Your task to perform on an android device: clear history in the chrome app Image 0: 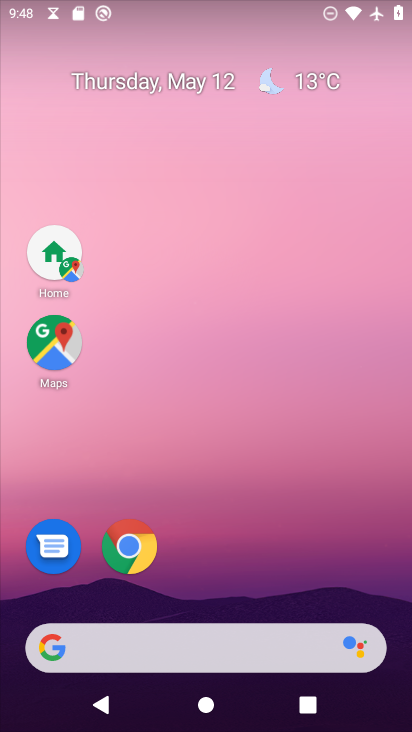
Step 0: press home button
Your task to perform on an android device: clear history in the chrome app Image 1: 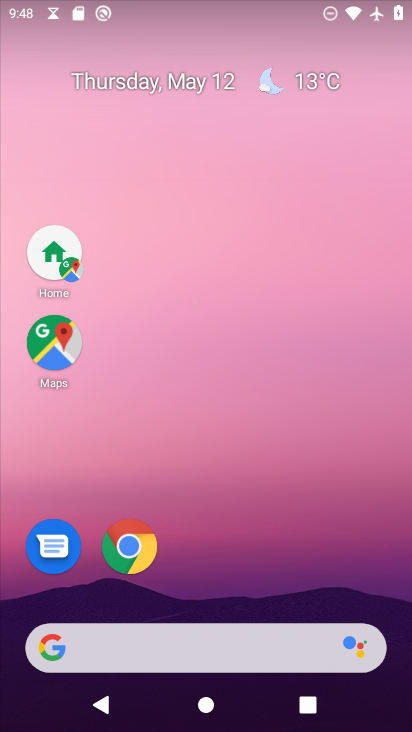
Step 1: drag from (151, 656) to (313, 188)
Your task to perform on an android device: clear history in the chrome app Image 2: 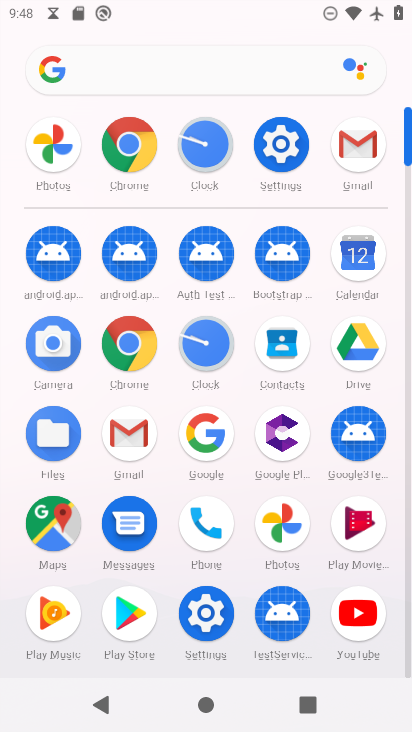
Step 2: click (143, 161)
Your task to perform on an android device: clear history in the chrome app Image 3: 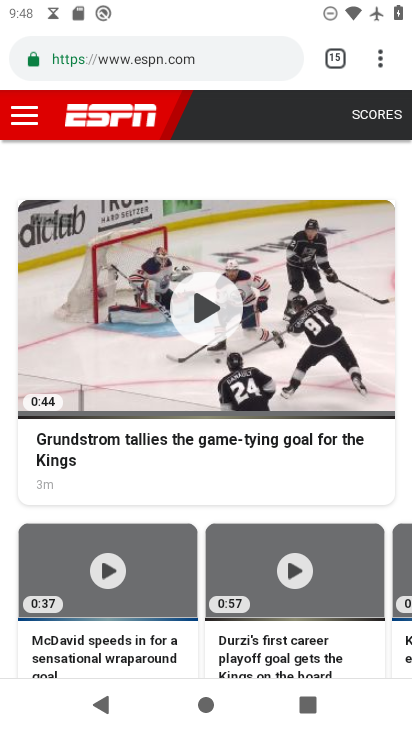
Step 3: drag from (380, 62) to (175, 327)
Your task to perform on an android device: clear history in the chrome app Image 4: 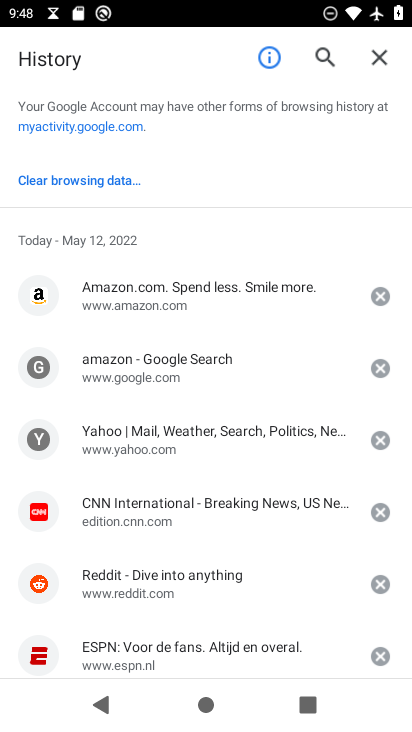
Step 4: click (96, 180)
Your task to perform on an android device: clear history in the chrome app Image 5: 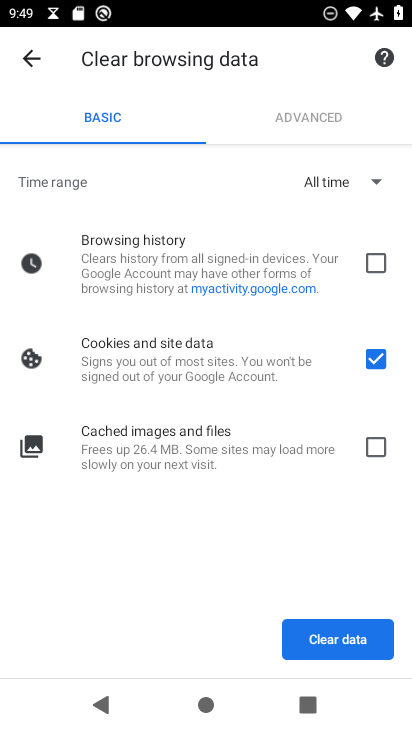
Step 5: click (376, 263)
Your task to perform on an android device: clear history in the chrome app Image 6: 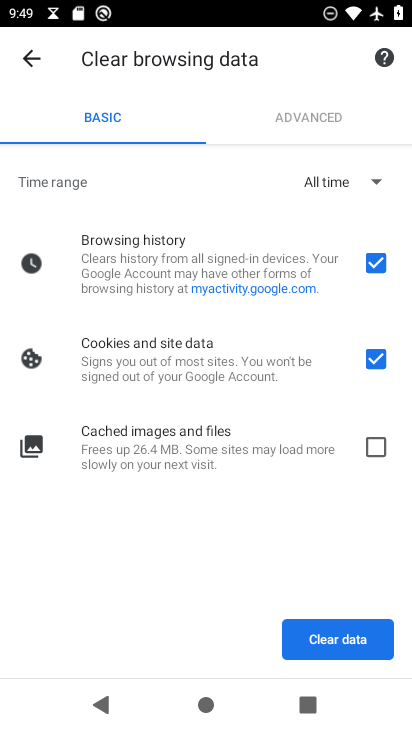
Step 6: click (379, 448)
Your task to perform on an android device: clear history in the chrome app Image 7: 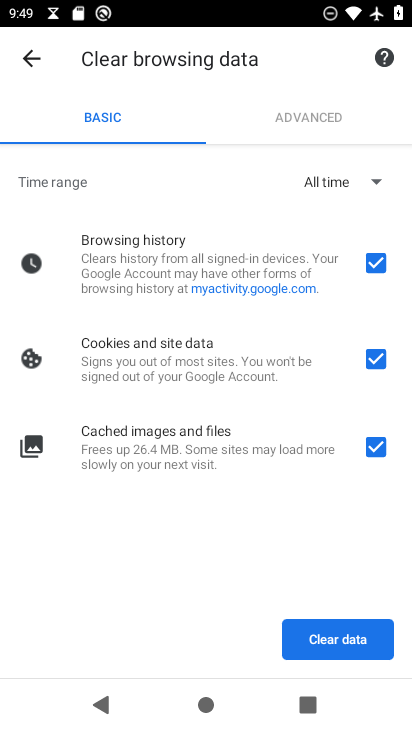
Step 7: click (333, 644)
Your task to perform on an android device: clear history in the chrome app Image 8: 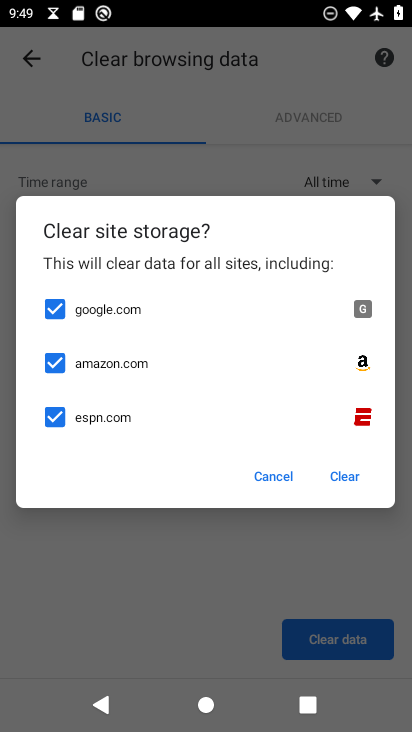
Step 8: click (349, 476)
Your task to perform on an android device: clear history in the chrome app Image 9: 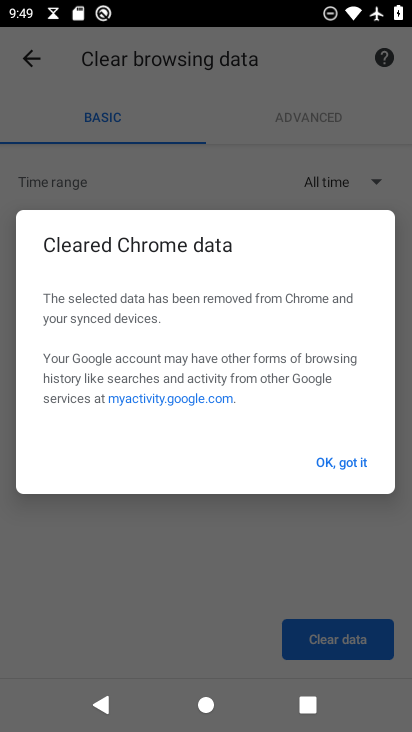
Step 9: click (348, 465)
Your task to perform on an android device: clear history in the chrome app Image 10: 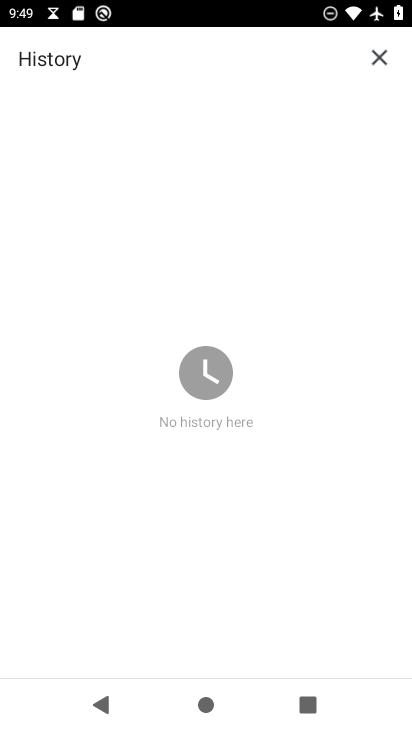
Step 10: task complete